Your task to perform on an android device: change the clock style Image 0: 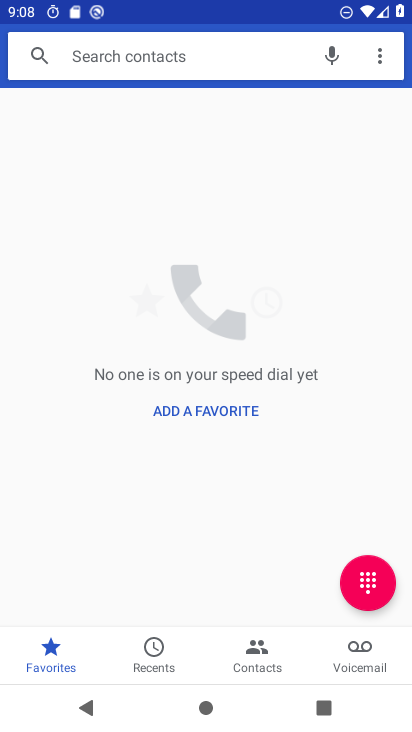
Step 0: press home button
Your task to perform on an android device: change the clock style Image 1: 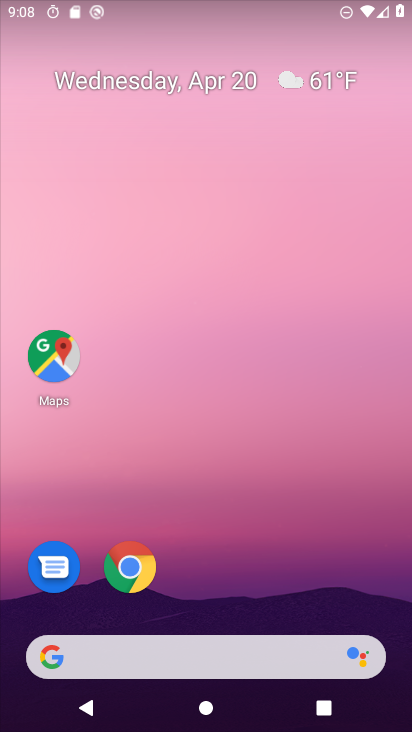
Step 1: drag from (333, 573) to (350, 0)
Your task to perform on an android device: change the clock style Image 2: 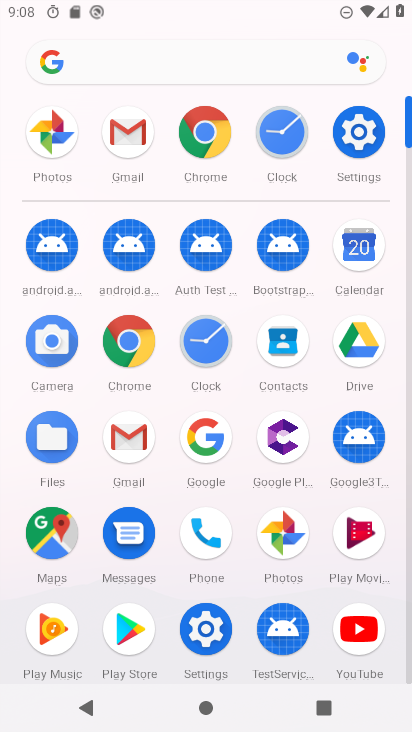
Step 2: click (280, 129)
Your task to perform on an android device: change the clock style Image 3: 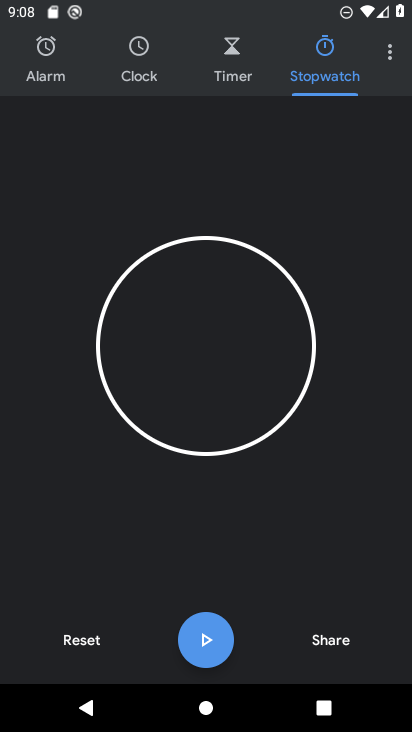
Step 3: click (387, 57)
Your task to perform on an android device: change the clock style Image 4: 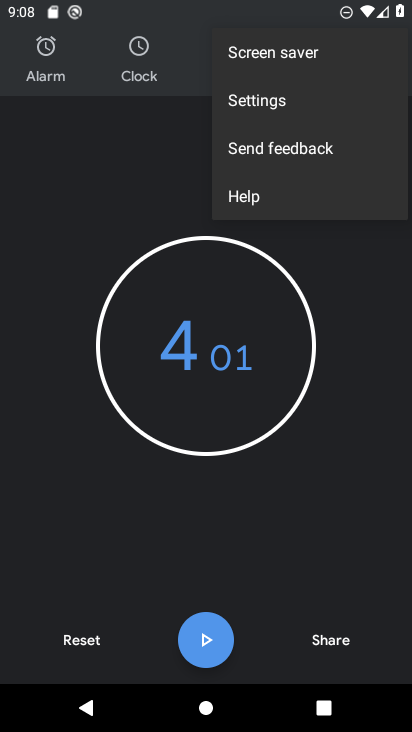
Step 4: click (269, 102)
Your task to perform on an android device: change the clock style Image 5: 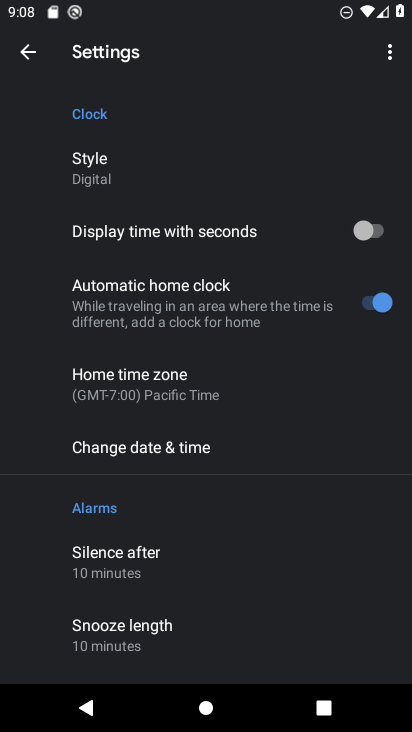
Step 5: click (96, 170)
Your task to perform on an android device: change the clock style Image 6: 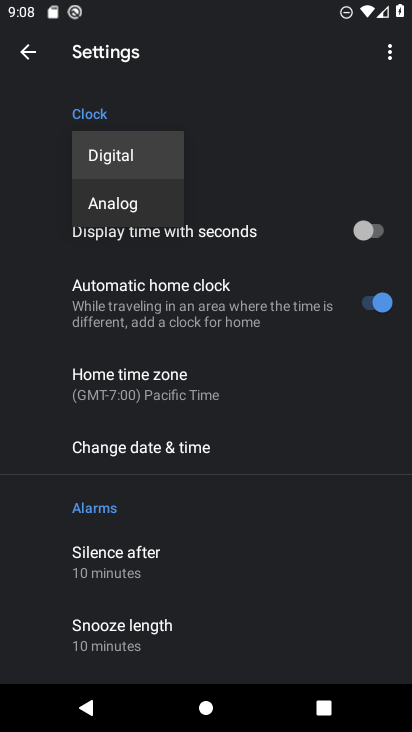
Step 6: click (107, 211)
Your task to perform on an android device: change the clock style Image 7: 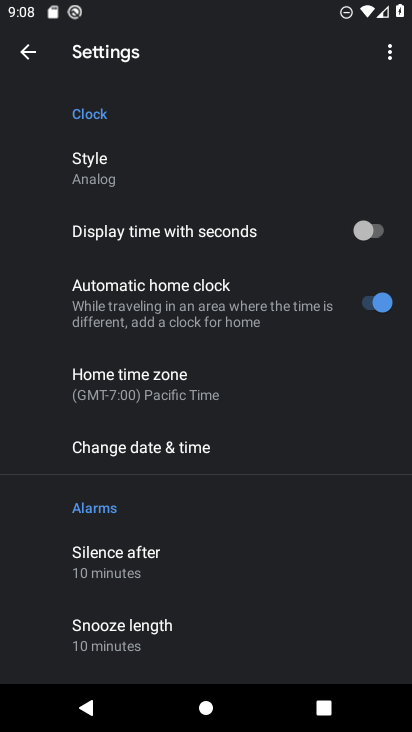
Step 7: task complete